Your task to perform on an android device: What's on my calendar tomorrow? Image 0: 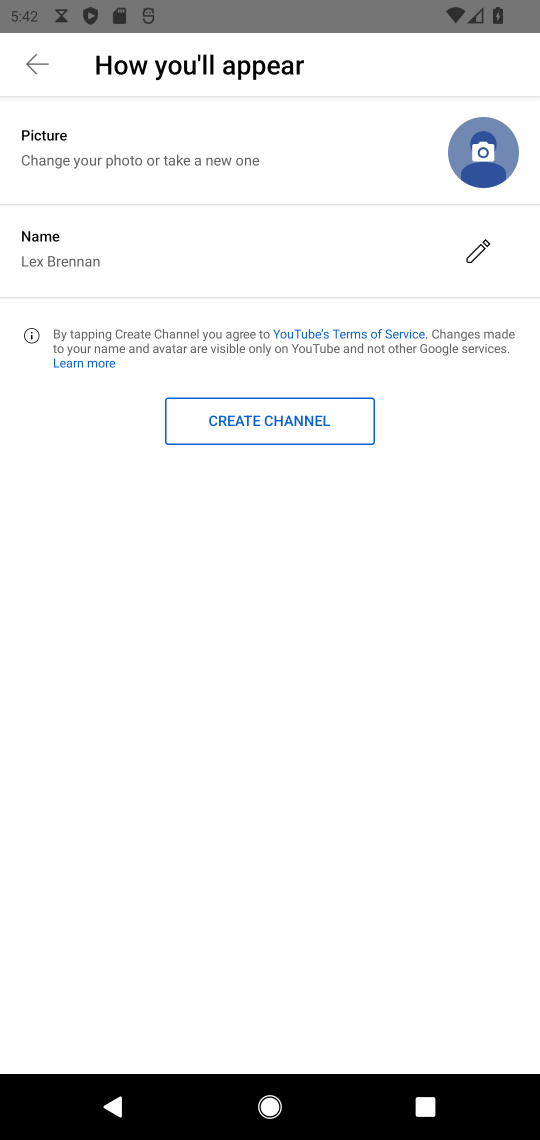
Step 0: press home button
Your task to perform on an android device: What's on my calendar tomorrow? Image 1: 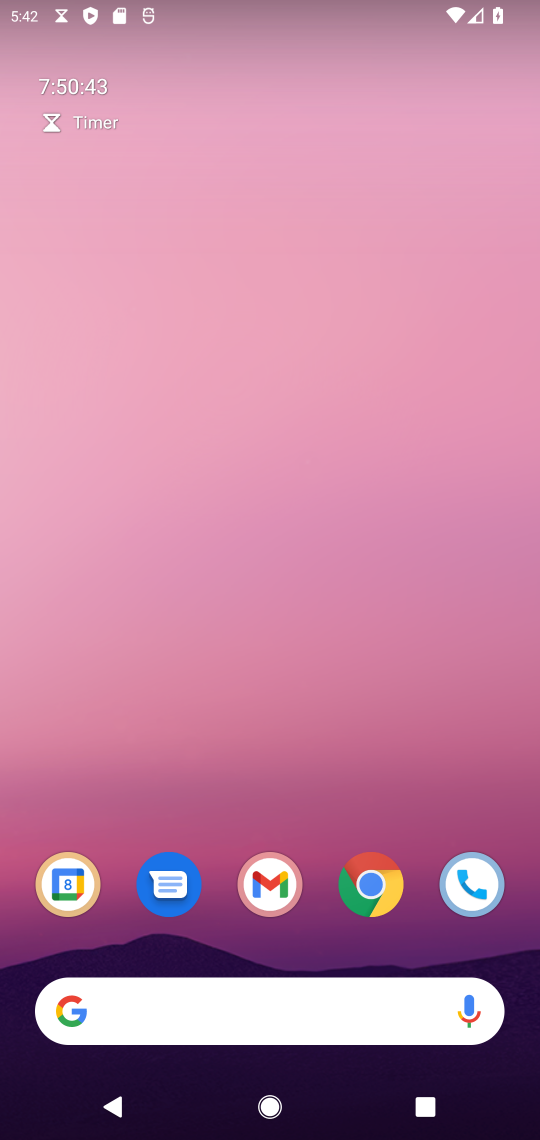
Step 1: drag from (431, 839) to (347, 184)
Your task to perform on an android device: What's on my calendar tomorrow? Image 2: 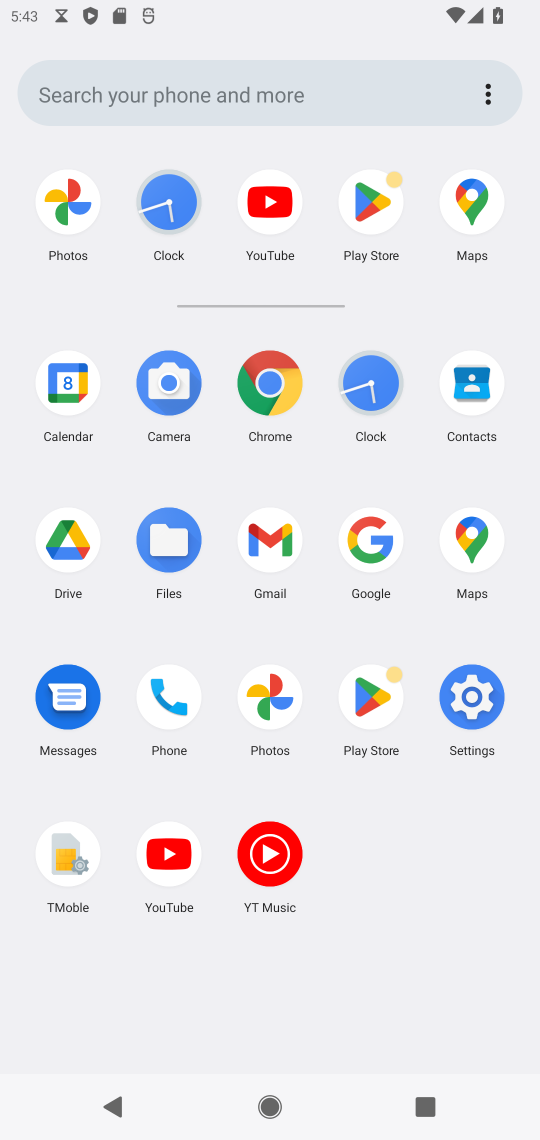
Step 2: click (74, 383)
Your task to perform on an android device: What's on my calendar tomorrow? Image 3: 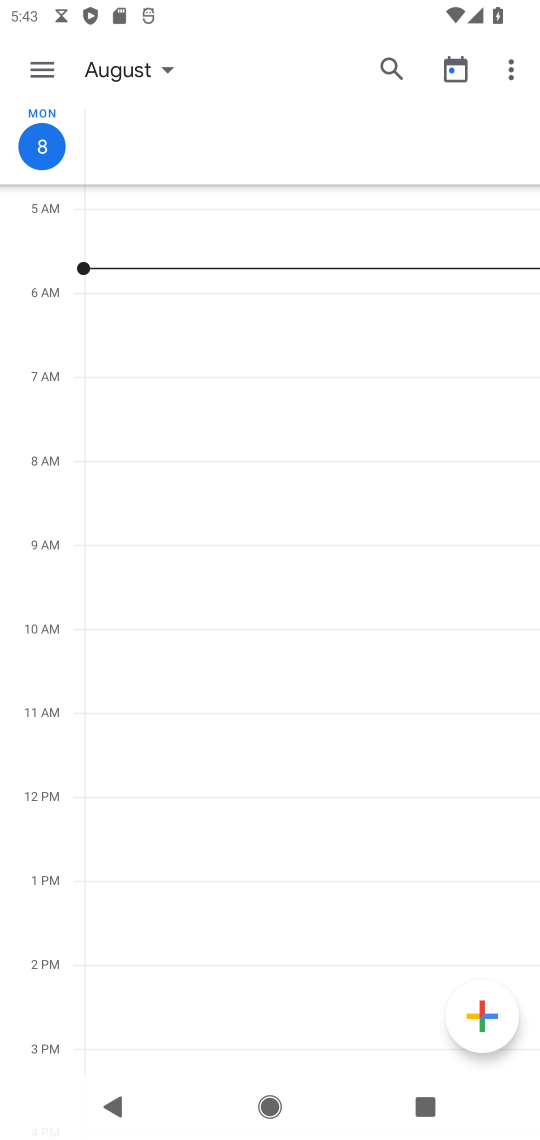
Step 3: task complete